Your task to perform on an android device: Is it going to rain today? Image 0: 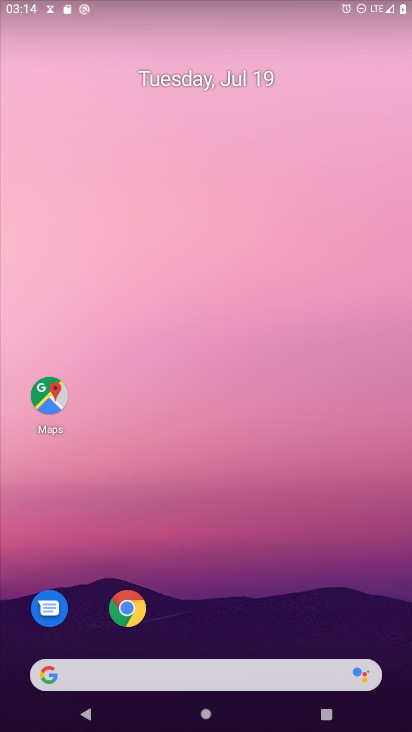
Step 0: drag from (273, 644) to (260, 128)
Your task to perform on an android device: Is it going to rain today? Image 1: 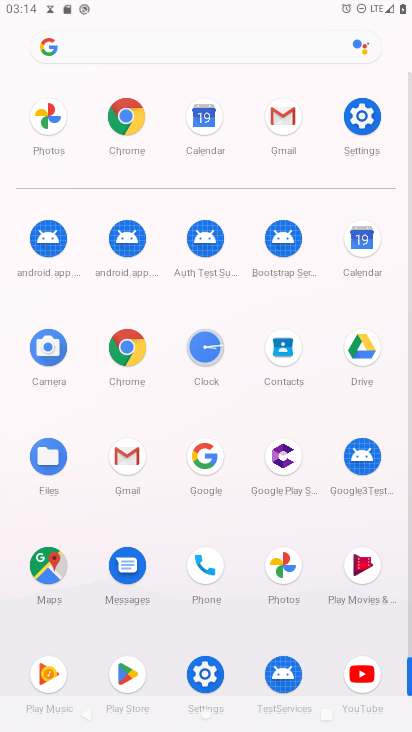
Step 1: click (135, 346)
Your task to perform on an android device: Is it going to rain today? Image 2: 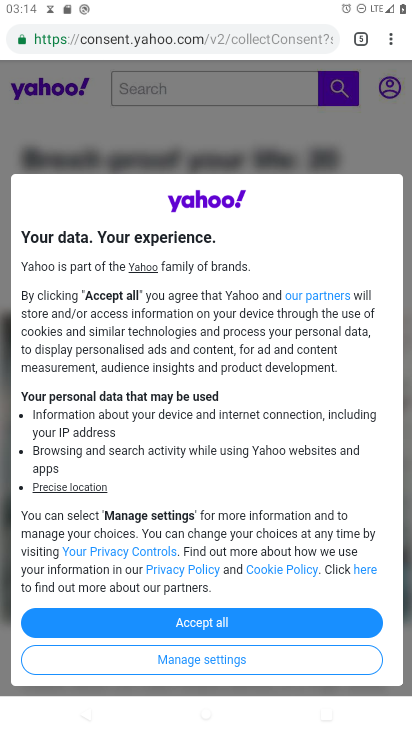
Step 2: type "going to rain today?"
Your task to perform on an android device: Is it going to rain today? Image 3: 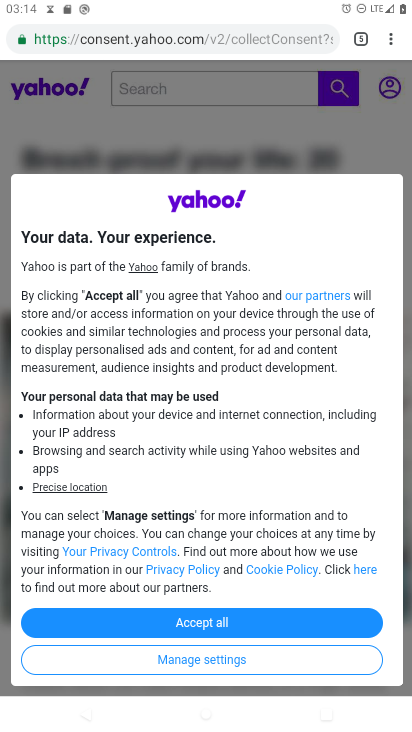
Step 3: click (250, 43)
Your task to perform on an android device: Is it going to rain today? Image 4: 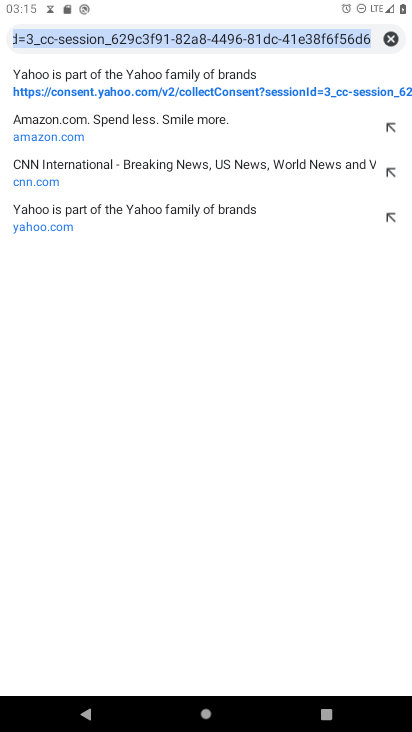
Step 4: type "going to rain today"
Your task to perform on an android device: Is it going to rain today? Image 5: 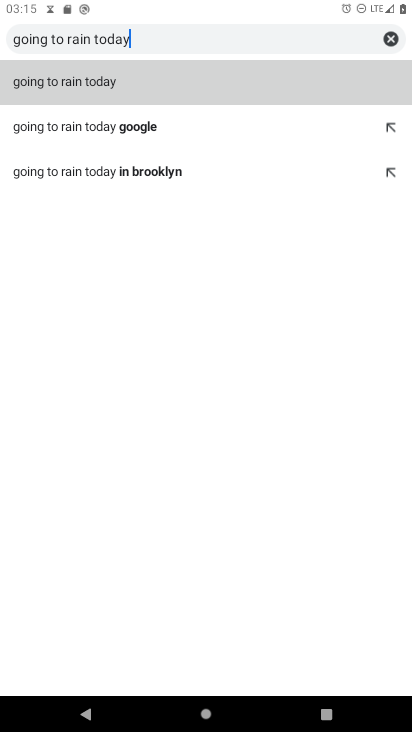
Step 5: click (169, 93)
Your task to perform on an android device: Is it going to rain today? Image 6: 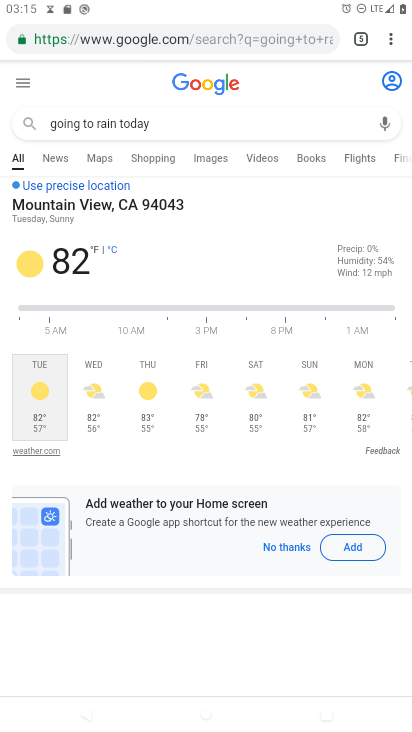
Step 6: task complete